Your task to perform on an android device: delete a single message in the gmail app Image 0: 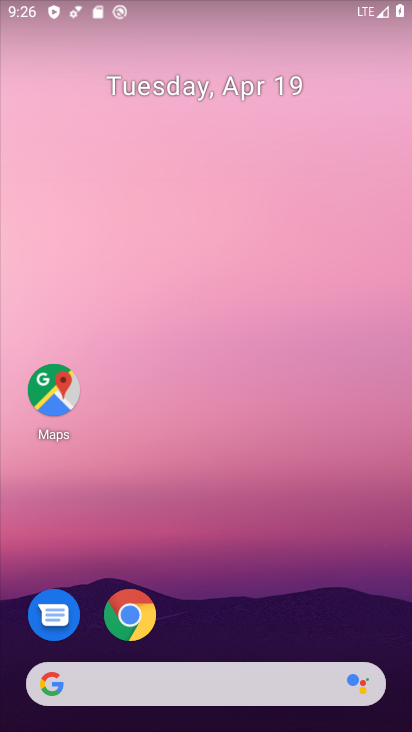
Step 0: drag from (318, 610) to (239, 43)
Your task to perform on an android device: delete a single message in the gmail app Image 1: 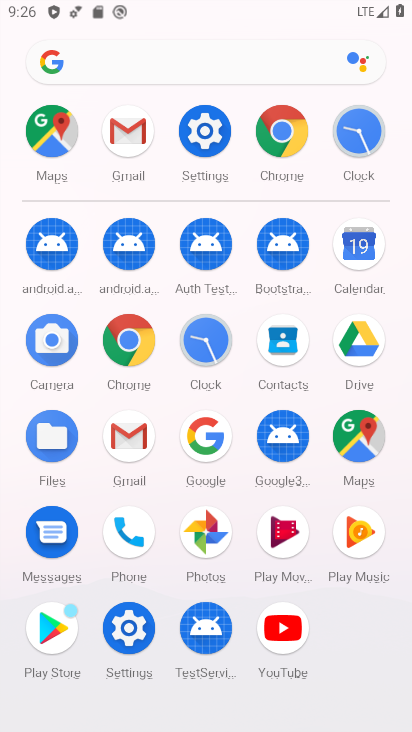
Step 1: click (124, 430)
Your task to perform on an android device: delete a single message in the gmail app Image 2: 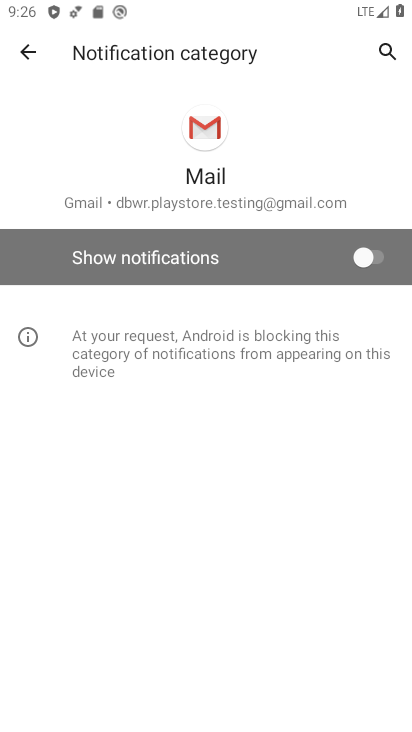
Step 2: click (35, 55)
Your task to perform on an android device: delete a single message in the gmail app Image 3: 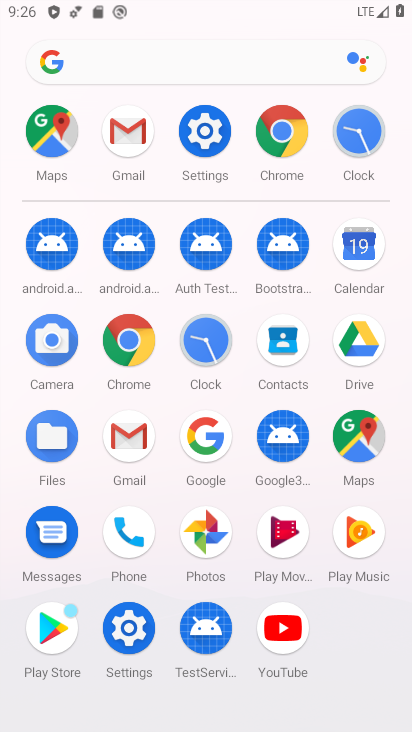
Step 3: click (124, 134)
Your task to perform on an android device: delete a single message in the gmail app Image 4: 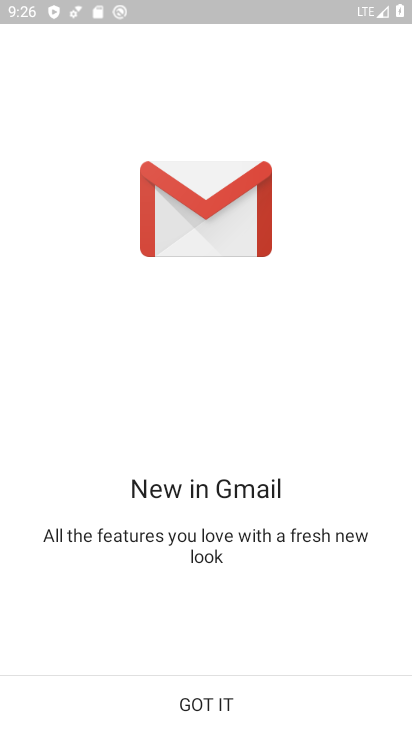
Step 4: click (157, 689)
Your task to perform on an android device: delete a single message in the gmail app Image 5: 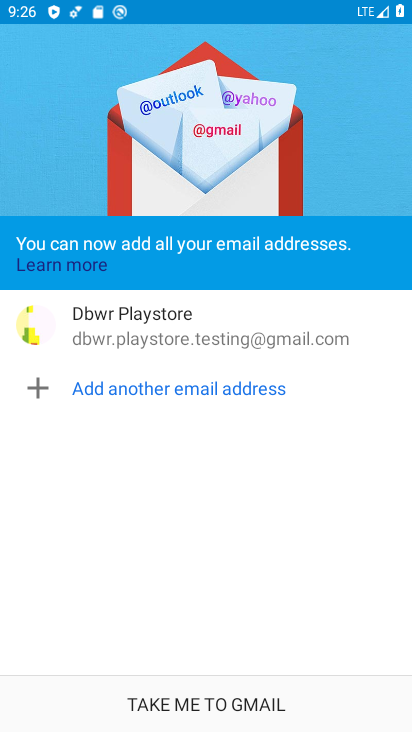
Step 5: click (240, 701)
Your task to perform on an android device: delete a single message in the gmail app Image 6: 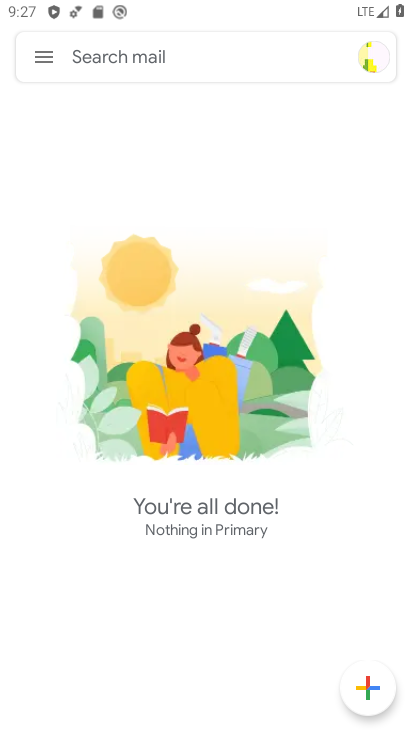
Step 6: task complete